Your task to perform on an android device: visit the assistant section in the google photos Image 0: 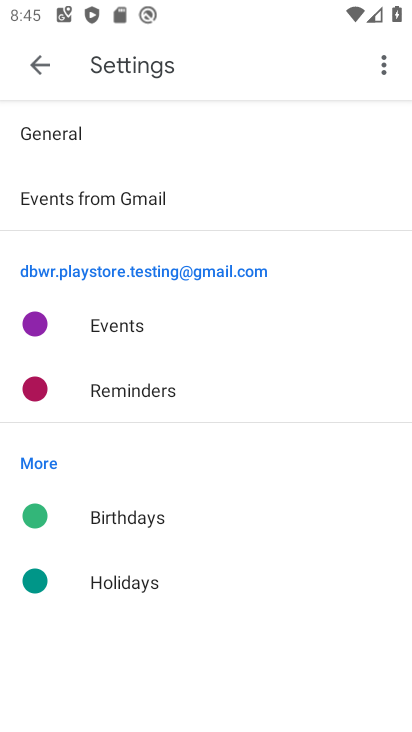
Step 0: press home button
Your task to perform on an android device: visit the assistant section in the google photos Image 1: 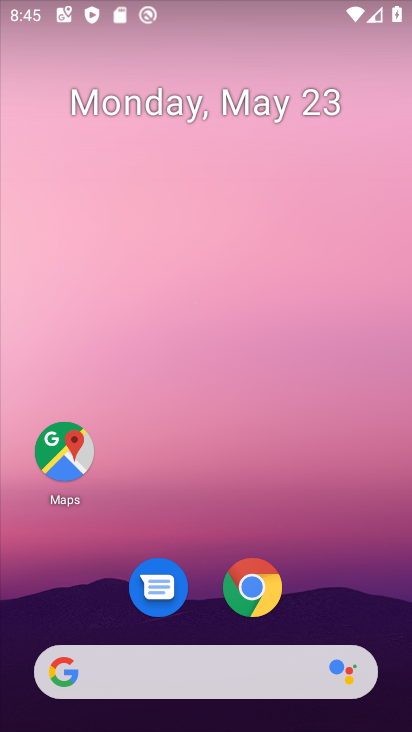
Step 1: drag from (308, 620) to (287, 59)
Your task to perform on an android device: visit the assistant section in the google photos Image 2: 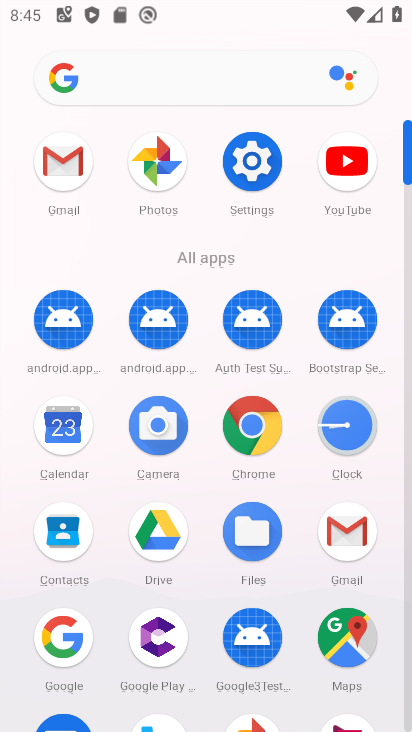
Step 2: click (149, 159)
Your task to perform on an android device: visit the assistant section in the google photos Image 3: 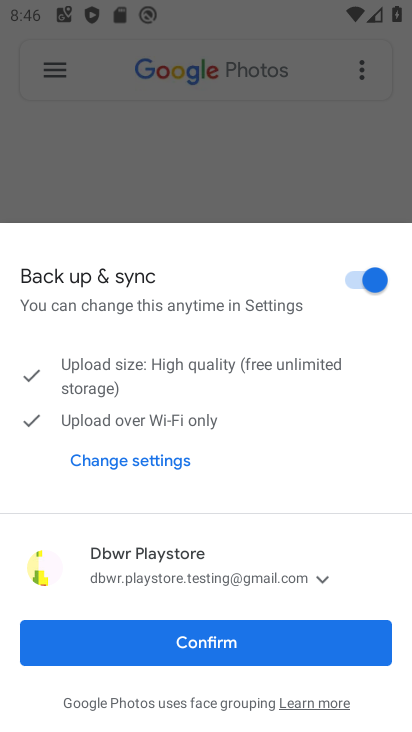
Step 3: click (262, 651)
Your task to perform on an android device: visit the assistant section in the google photos Image 4: 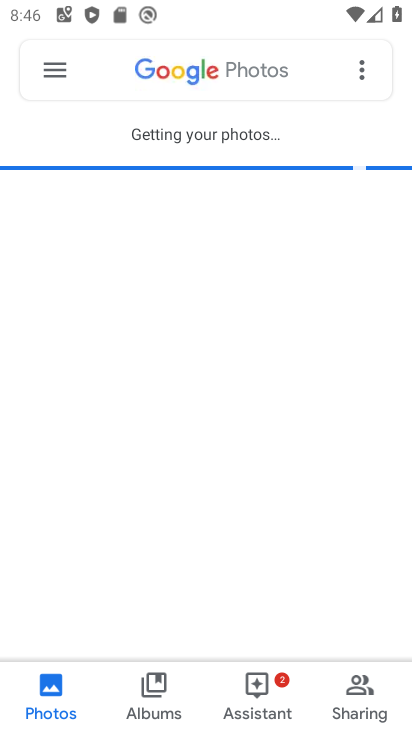
Step 4: click (258, 692)
Your task to perform on an android device: visit the assistant section in the google photos Image 5: 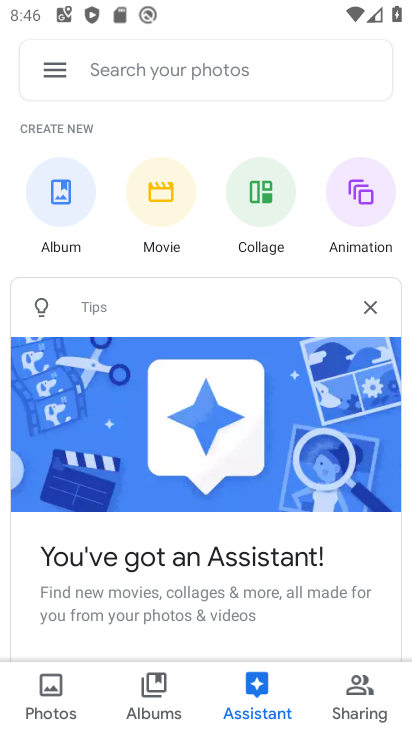
Step 5: drag from (305, 610) to (294, 276)
Your task to perform on an android device: visit the assistant section in the google photos Image 6: 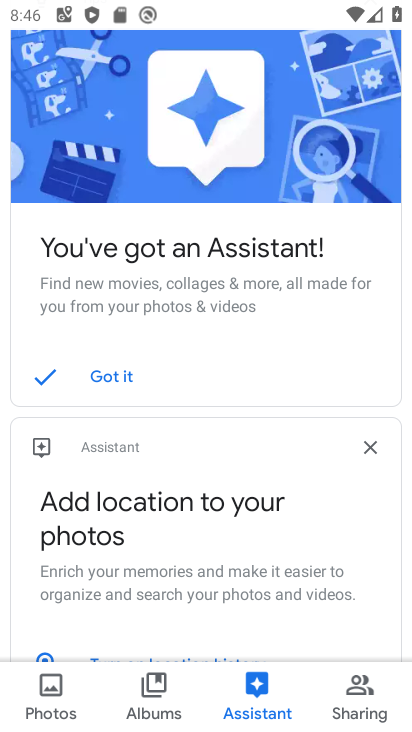
Step 6: click (294, 276)
Your task to perform on an android device: visit the assistant section in the google photos Image 7: 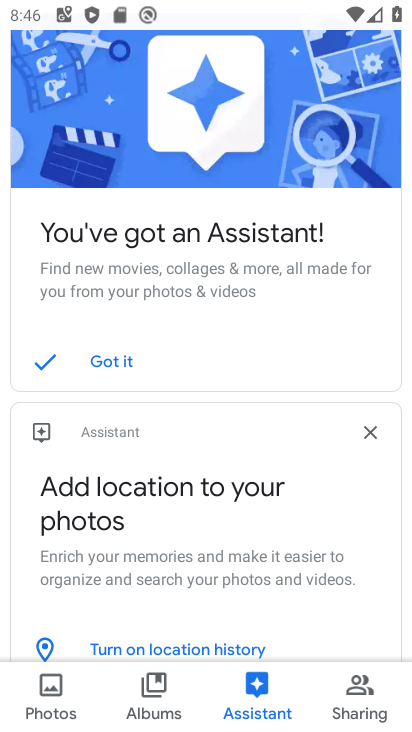
Step 7: task complete